Your task to perform on an android device: Open Yahoo.com Image 0: 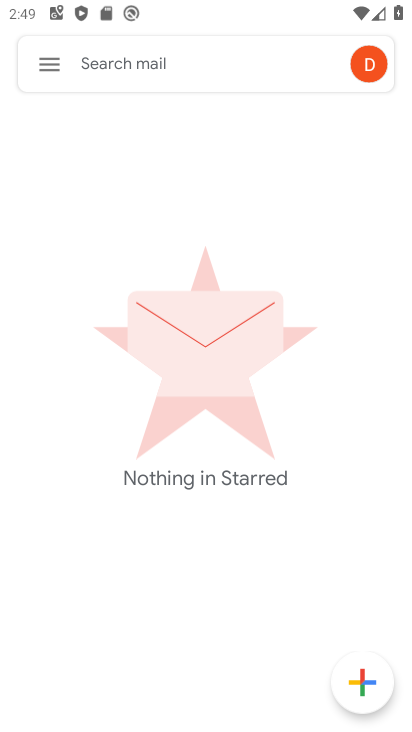
Step 0: press home button
Your task to perform on an android device: Open Yahoo.com Image 1: 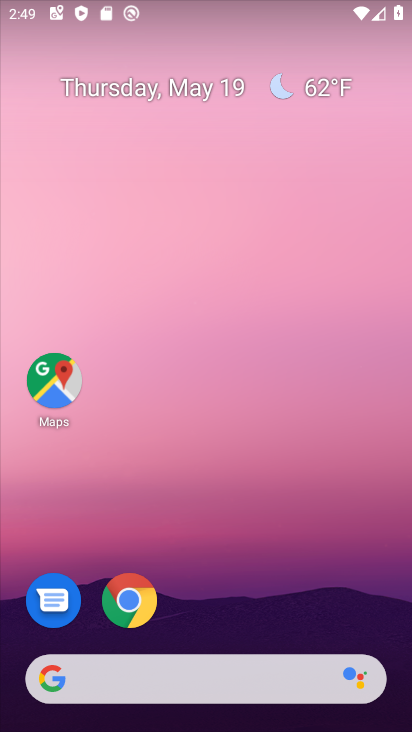
Step 1: click (148, 608)
Your task to perform on an android device: Open Yahoo.com Image 2: 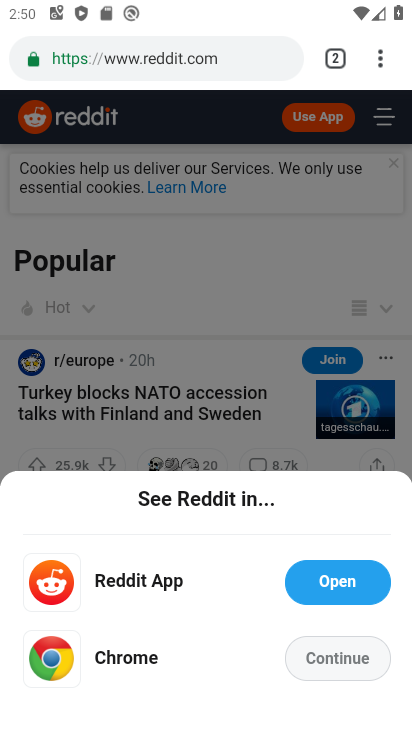
Step 2: click (339, 63)
Your task to perform on an android device: Open Yahoo.com Image 3: 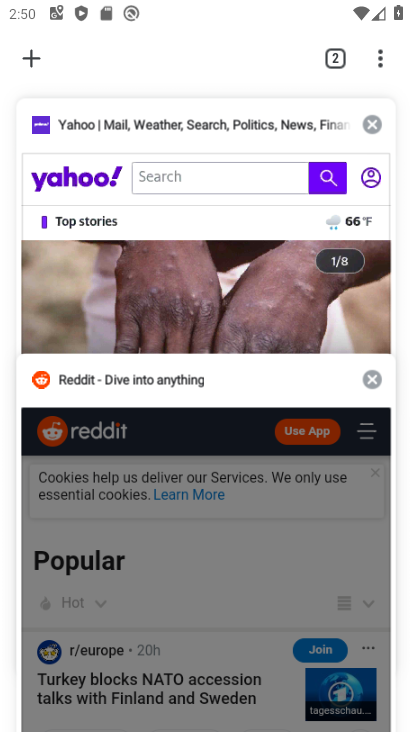
Step 3: click (375, 385)
Your task to perform on an android device: Open Yahoo.com Image 4: 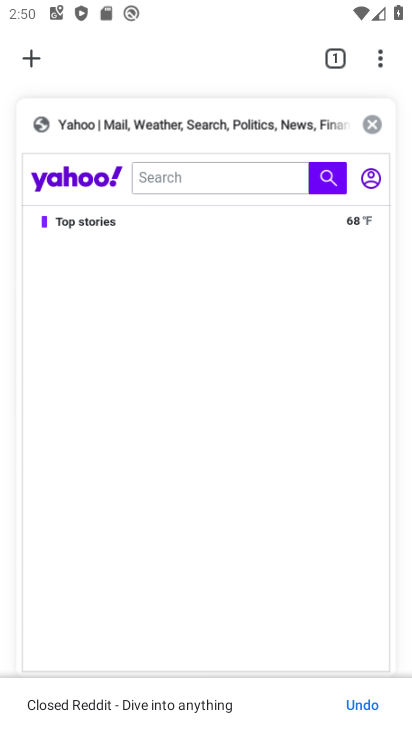
Step 4: click (216, 368)
Your task to perform on an android device: Open Yahoo.com Image 5: 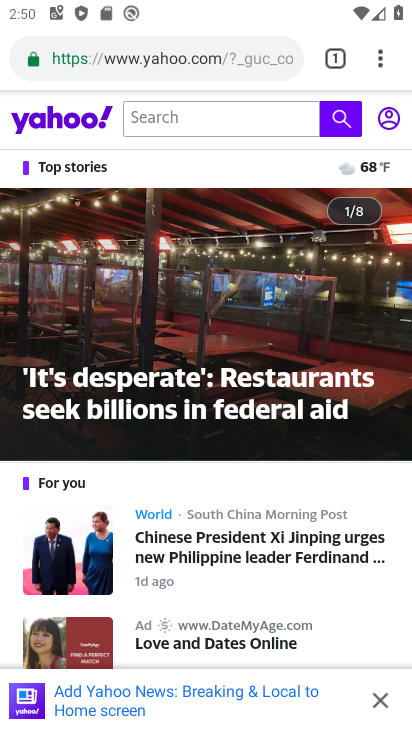
Step 5: task complete